Your task to perform on an android device: add a label to a message in the gmail app Image 0: 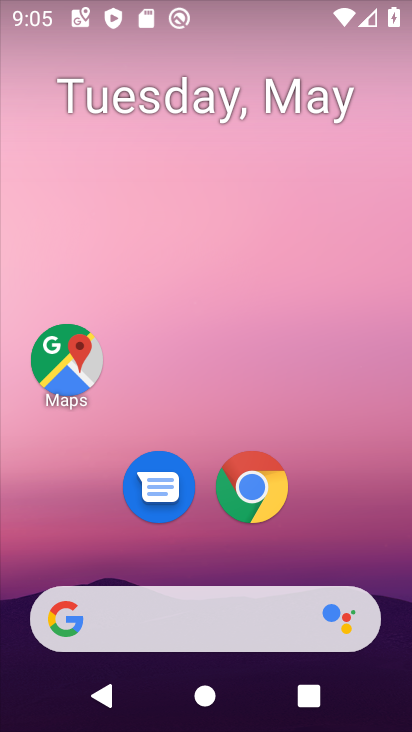
Step 0: drag from (369, 559) to (383, 235)
Your task to perform on an android device: add a label to a message in the gmail app Image 1: 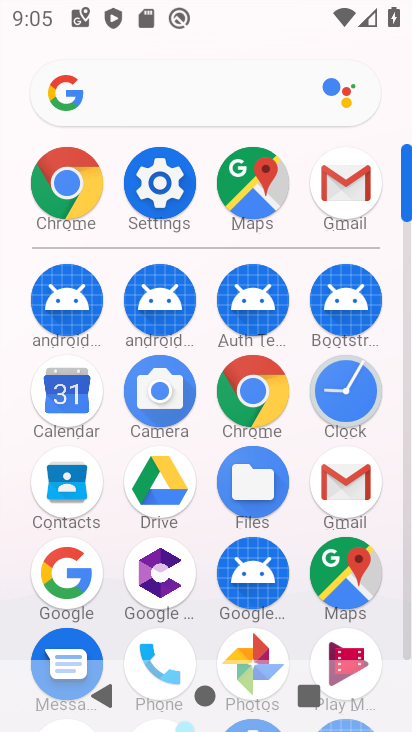
Step 1: click (351, 483)
Your task to perform on an android device: add a label to a message in the gmail app Image 2: 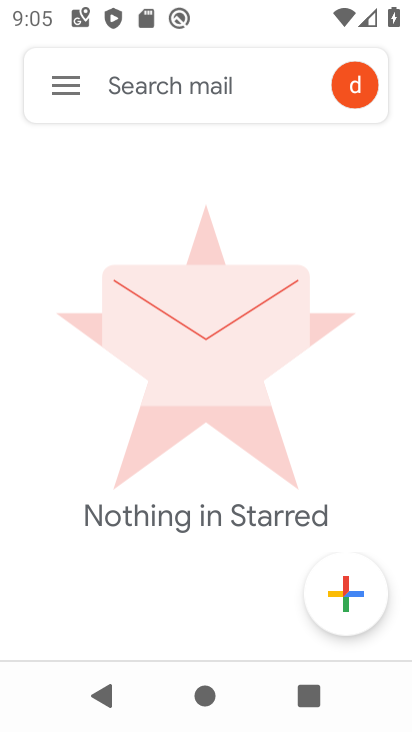
Step 2: click (68, 98)
Your task to perform on an android device: add a label to a message in the gmail app Image 3: 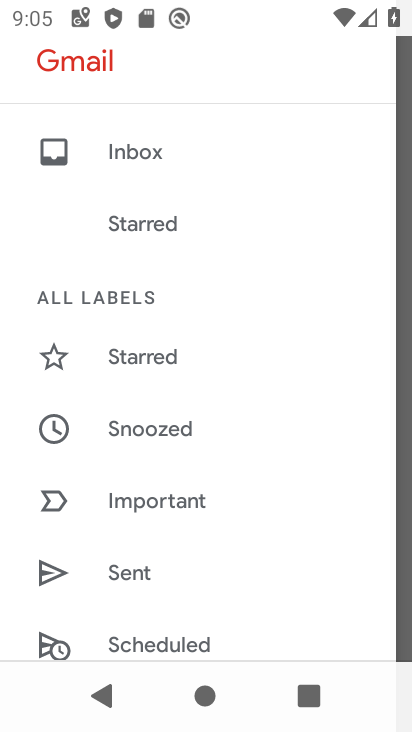
Step 3: click (158, 162)
Your task to perform on an android device: add a label to a message in the gmail app Image 4: 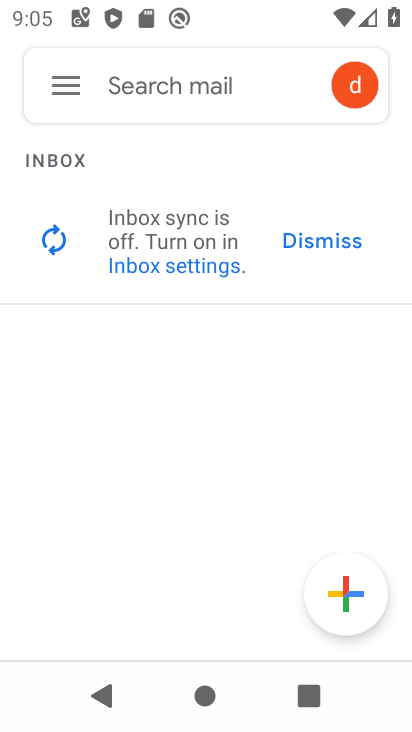
Step 4: task complete